Your task to perform on an android device: toggle show notifications on the lock screen Image 0: 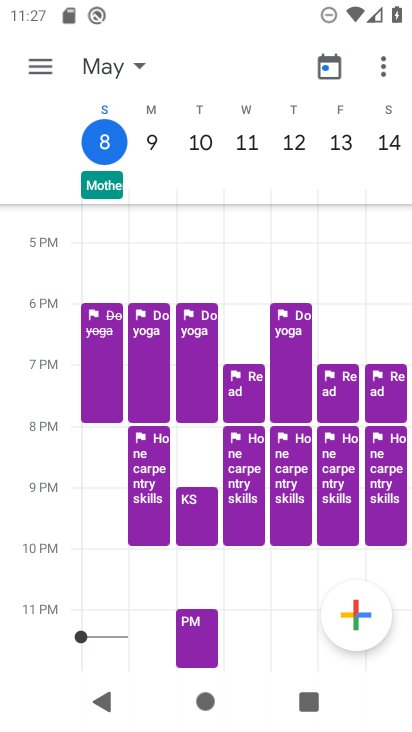
Step 0: press home button
Your task to perform on an android device: toggle show notifications on the lock screen Image 1: 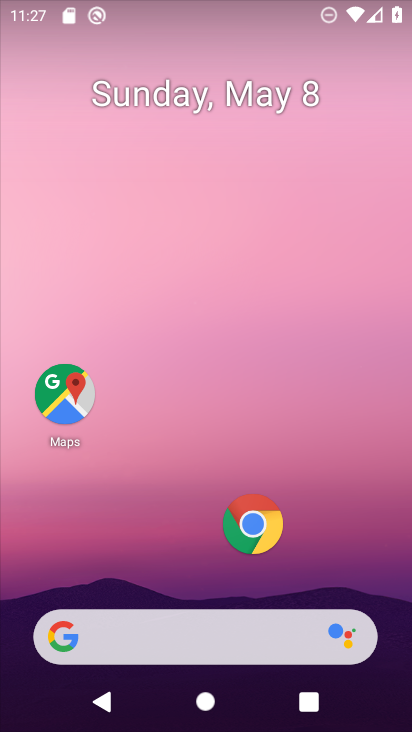
Step 1: drag from (120, 489) to (108, 140)
Your task to perform on an android device: toggle show notifications on the lock screen Image 2: 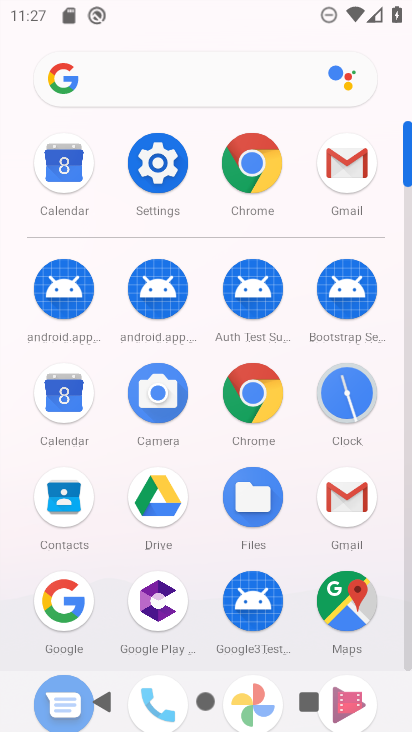
Step 2: click (154, 165)
Your task to perform on an android device: toggle show notifications on the lock screen Image 3: 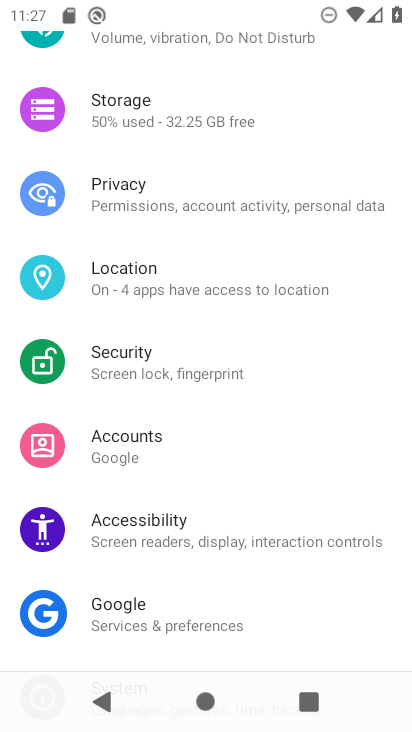
Step 3: drag from (249, 161) to (221, 532)
Your task to perform on an android device: toggle show notifications on the lock screen Image 4: 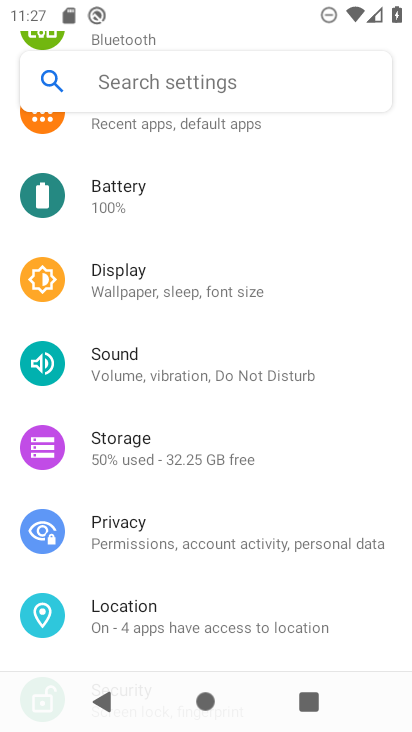
Step 4: drag from (215, 227) to (208, 501)
Your task to perform on an android device: toggle show notifications on the lock screen Image 5: 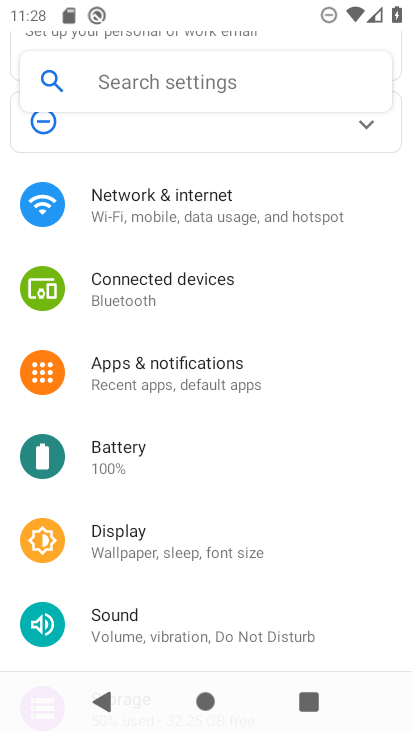
Step 5: click (211, 363)
Your task to perform on an android device: toggle show notifications on the lock screen Image 6: 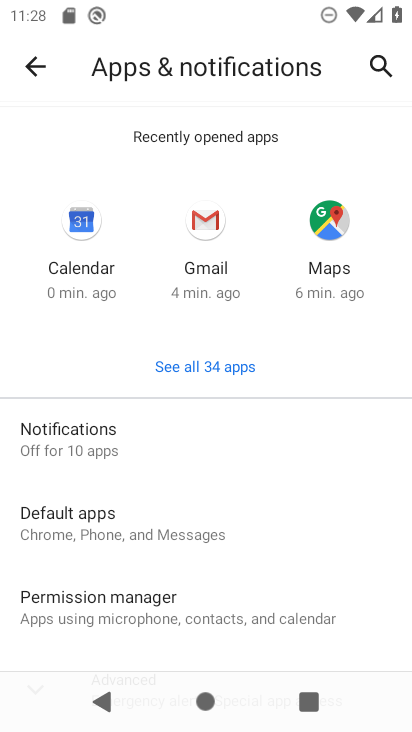
Step 6: click (176, 438)
Your task to perform on an android device: toggle show notifications on the lock screen Image 7: 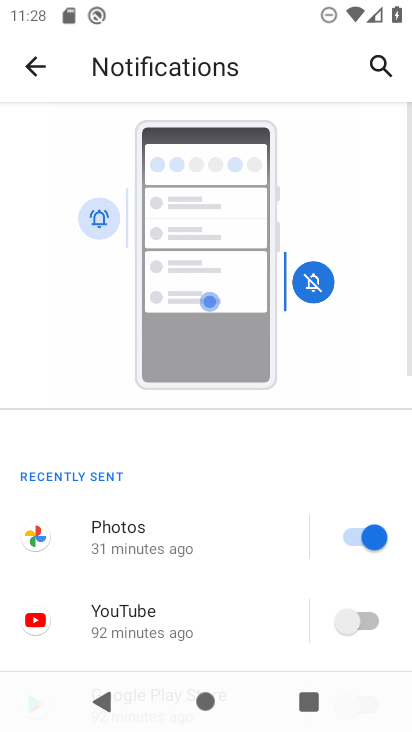
Step 7: drag from (208, 571) to (229, 248)
Your task to perform on an android device: toggle show notifications on the lock screen Image 8: 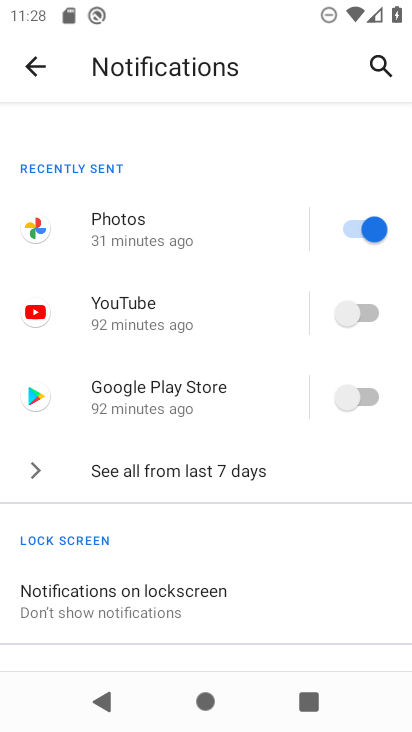
Step 8: drag from (209, 519) to (241, 177)
Your task to perform on an android device: toggle show notifications on the lock screen Image 9: 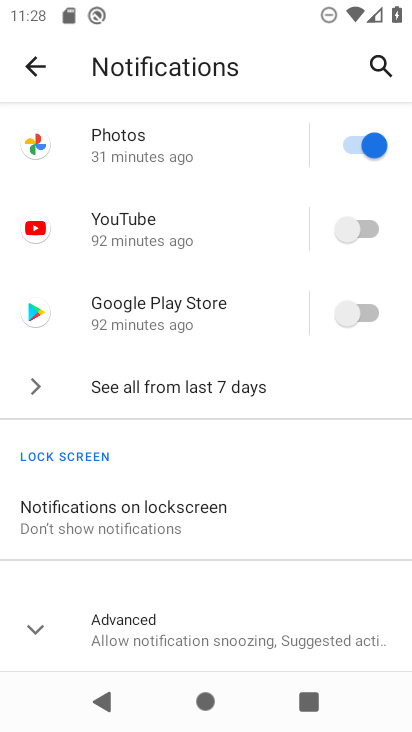
Step 9: click (225, 523)
Your task to perform on an android device: toggle show notifications on the lock screen Image 10: 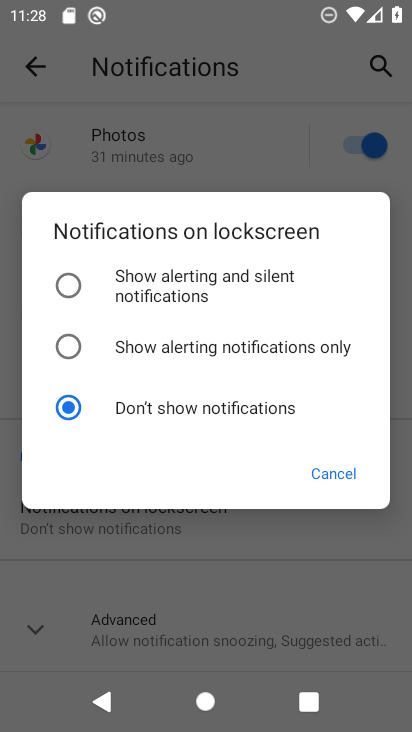
Step 10: click (76, 275)
Your task to perform on an android device: toggle show notifications on the lock screen Image 11: 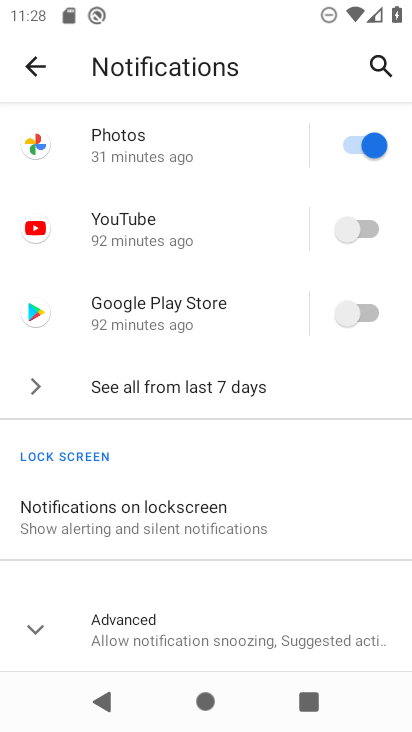
Step 11: task complete